Your task to perform on an android device: Go to notification settings Image 0: 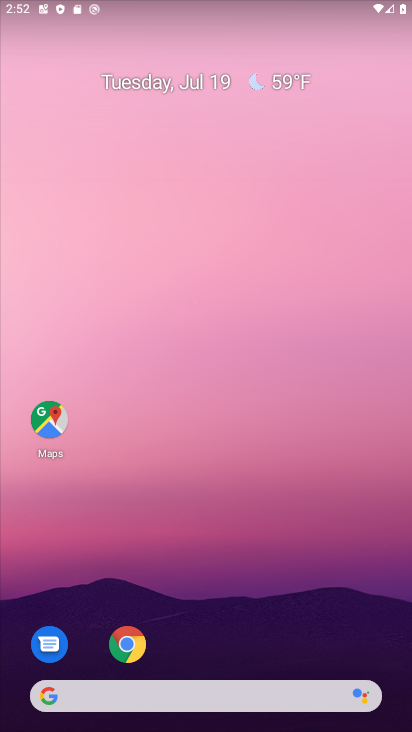
Step 0: drag from (262, 629) to (222, 286)
Your task to perform on an android device: Go to notification settings Image 1: 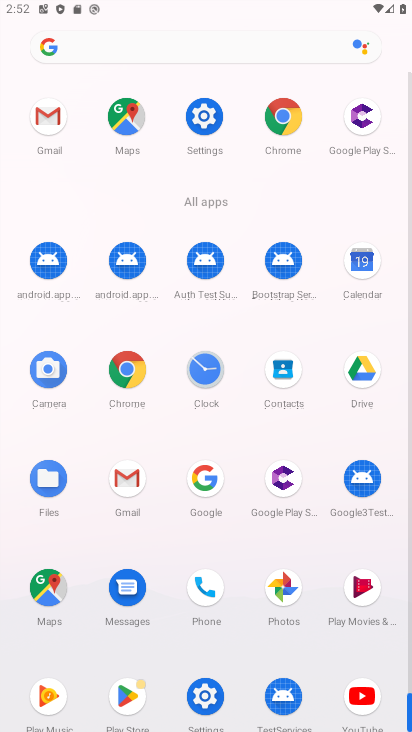
Step 1: click (197, 126)
Your task to perform on an android device: Go to notification settings Image 2: 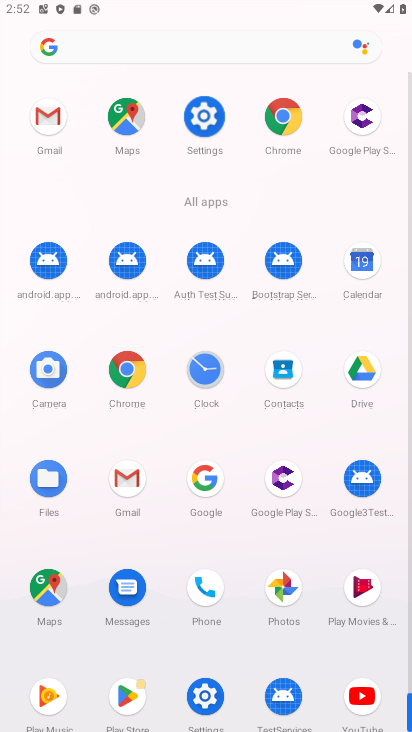
Step 2: click (198, 126)
Your task to perform on an android device: Go to notification settings Image 3: 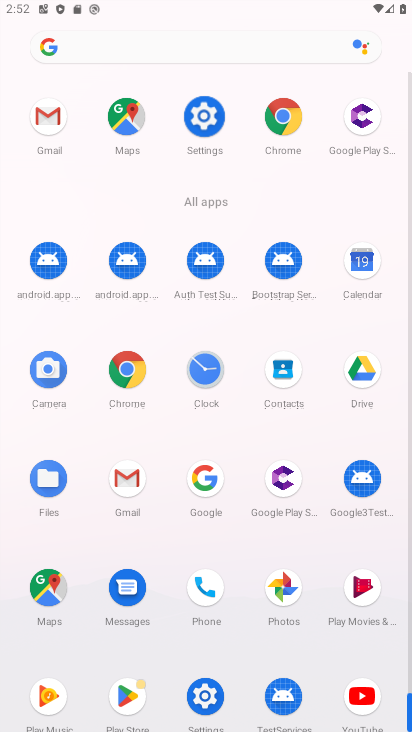
Step 3: click (199, 126)
Your task to perform on an android device: Go to notification settings Image 4: 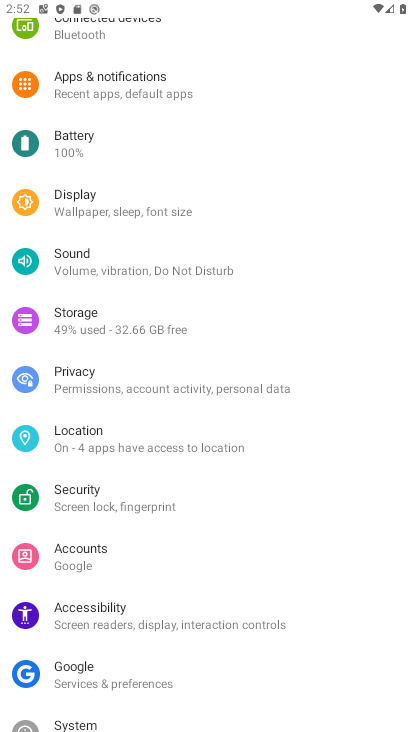
Step 4: click (78, 215)
Your task to perform on an android device: Go to notification settings Image 5: 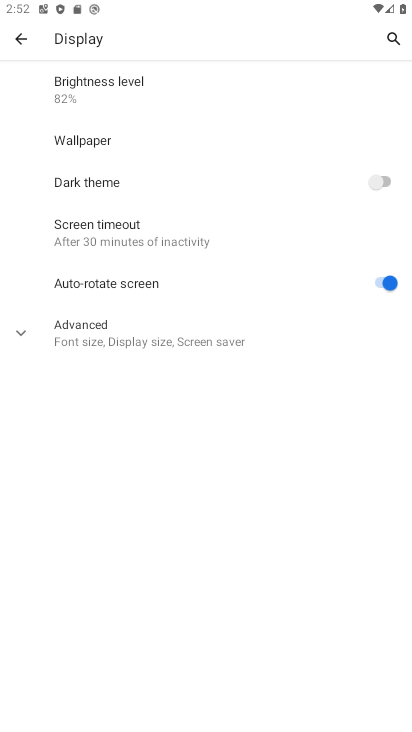
Step 5: click (131, 328)
Your task to perform on an android device: Go to notification settings Image 6: 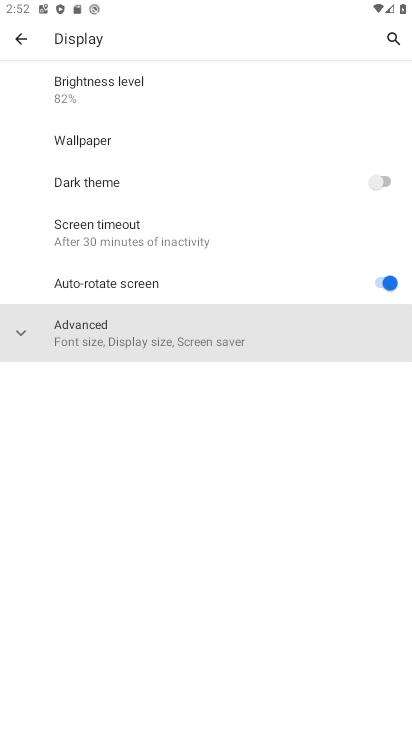
Step 6: click (130, 329)
Your task to perform on an android device: Go to notification settings Image 7: 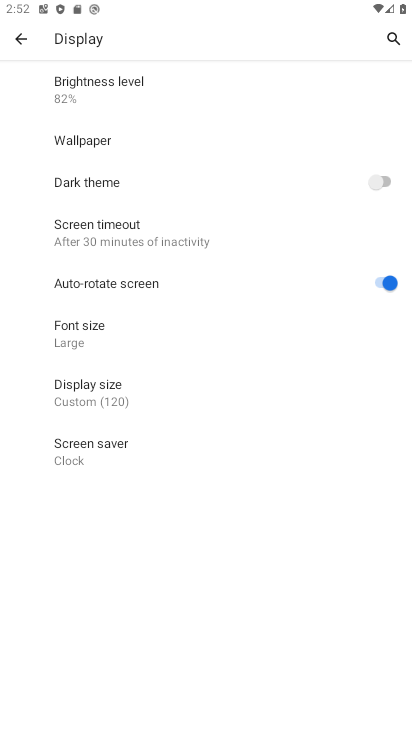
Step 7: click (65, 329)
Your task to perform on an android device: Go to notification settings Image 8: 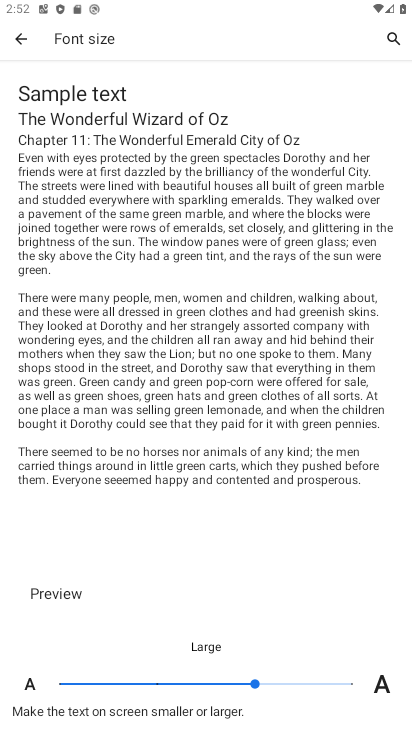
Step 8: click (346, 690)
Your task to perform on an android device: Go to notification settings Image 9: 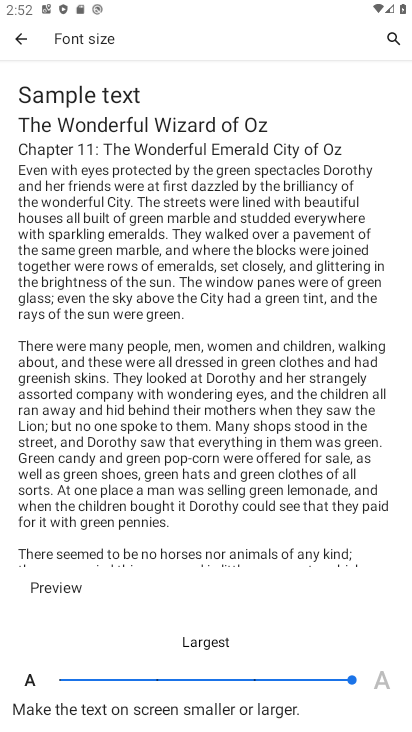
Step 9: press back button
Your task to perform on an android device: Go to notification settings Image 10: 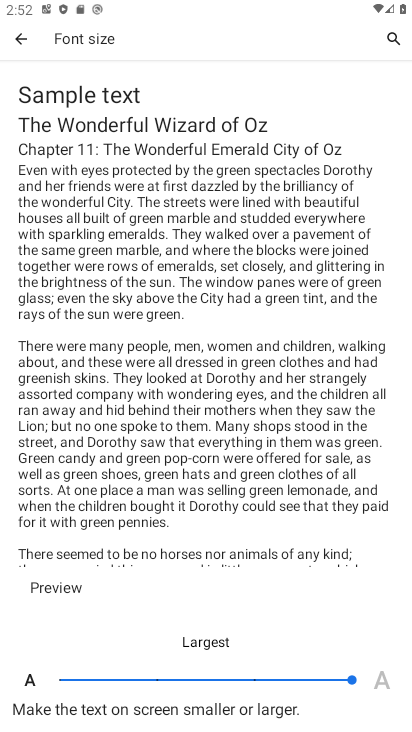
Step 10: press back button
Your task to perform on an android device: Go to notification settings Image 11: 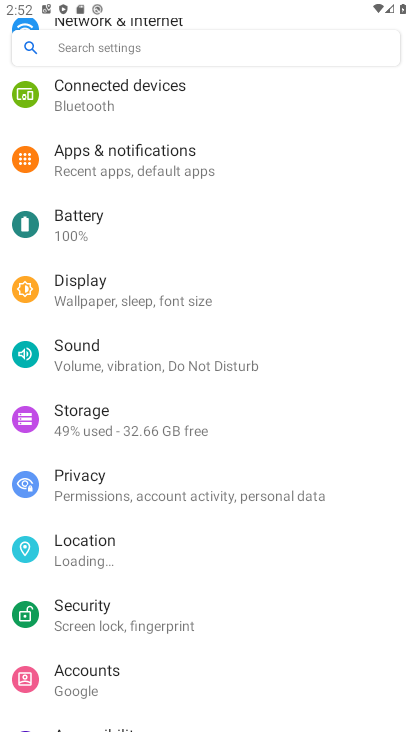
Step 11: click (128, 164)
Your task to perform on an android device: Go to notification settings Image 12: 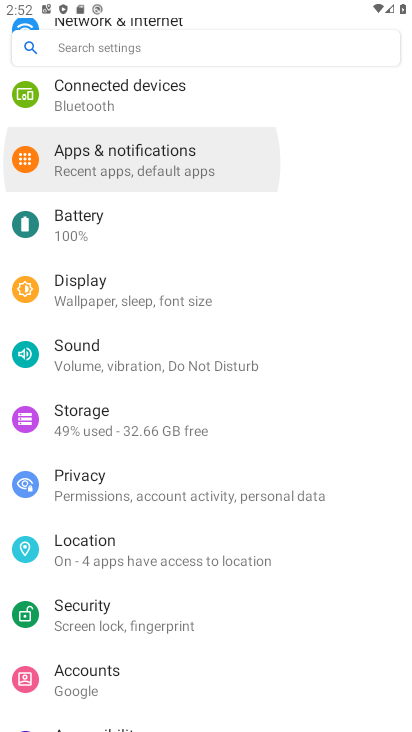
Step 12: click (128, 164)
Your task to perform on an android device: Go to notification settings Image 13: 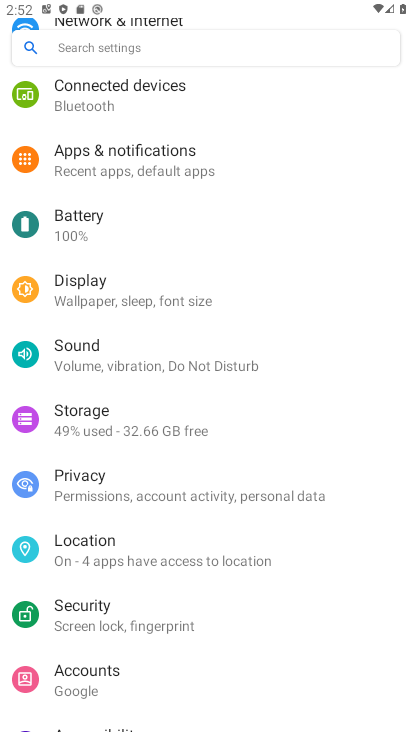
Step 13: click (128, 164)
Your task to perform on an android device: Go to notification settings Image 14: 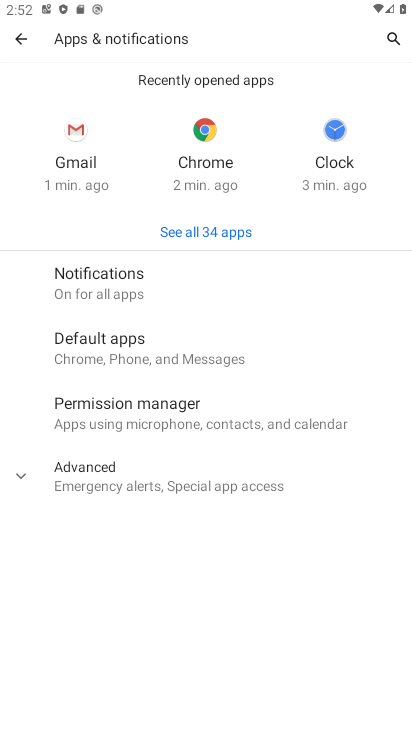
Step 14: task complete